Your task to perform on an android device: Do I have any events today? Image 0: 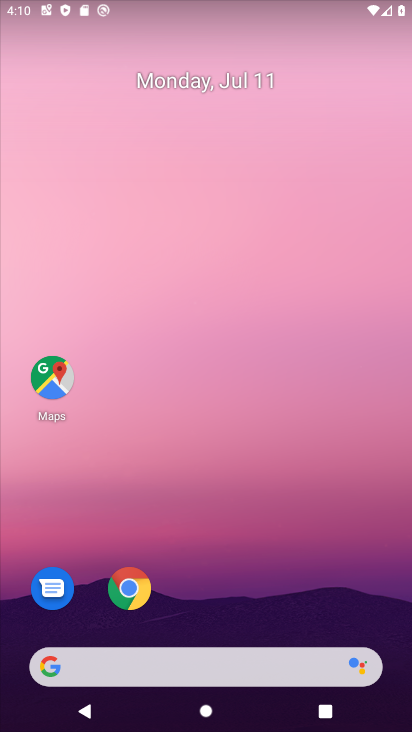
Step 0: drag from (356, 616) to (349, 106)
Your task to perform on an android device: Do I have any events today? Image 1: 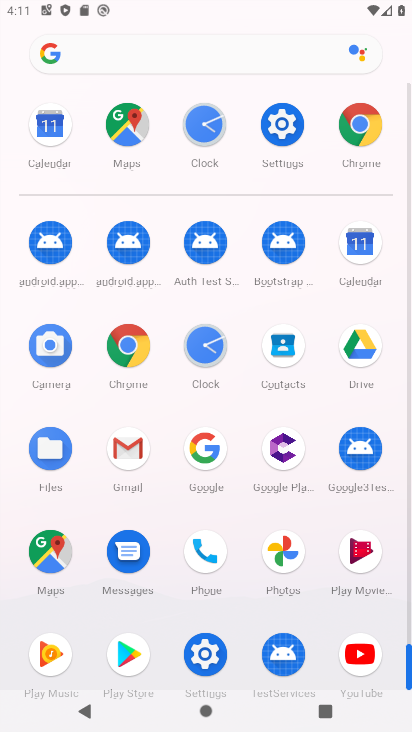
Step 1: click (358, 247)
Your task to perform on an android device: Do I have any events today? Image 2: 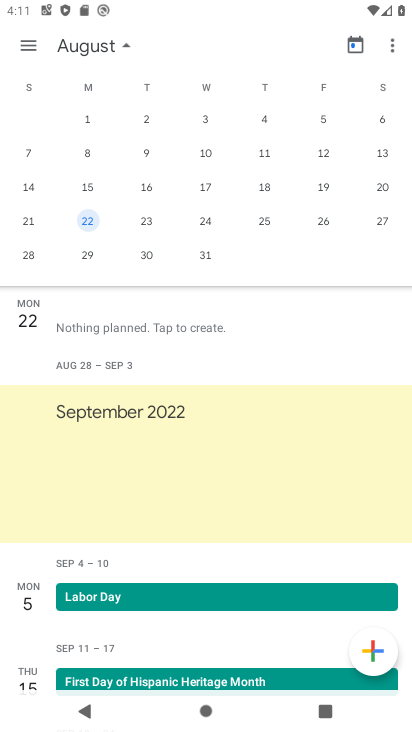
Step 2: drag from (111, 101) to (125, 387)
Your task to perform on an android device: Do I have any events today? Image 3: 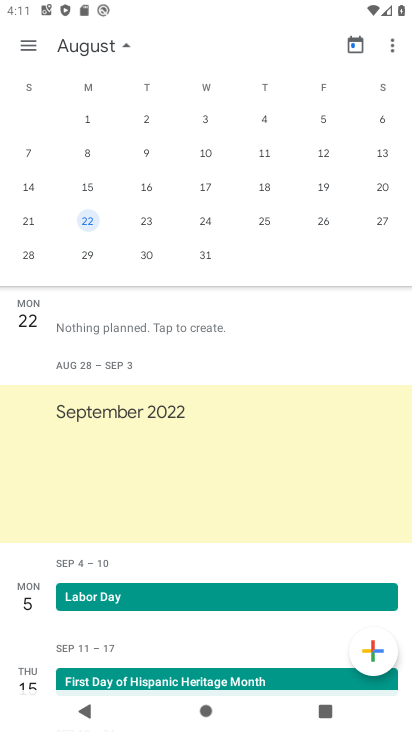
Step 3: click (123, 40)
Your task to perform on an android device: Do I have any events today? Image 4: 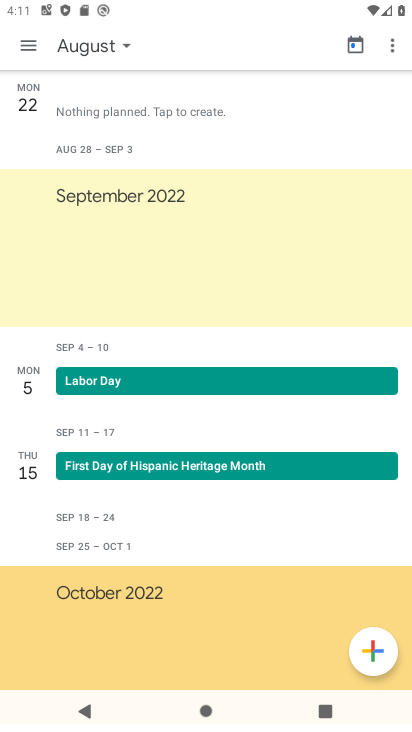
Step 4: click (120, 42)
Your task to perform on an android device: Do I have any events today? Image 5: 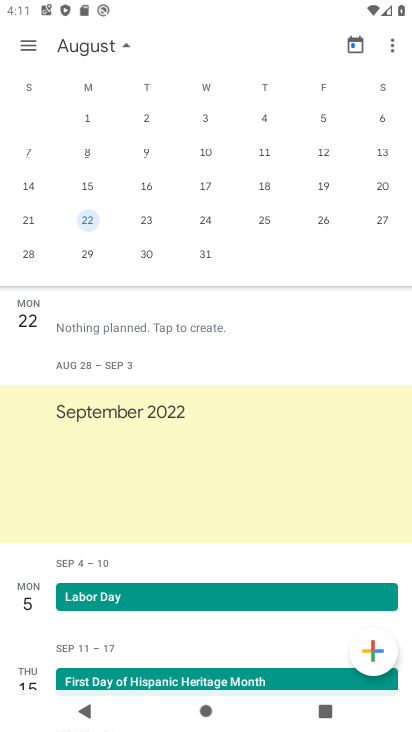
Step 5: drag from (85, 97) to (363, 115)
Your task to perform on an android device: Do I have any events today? Image 6: 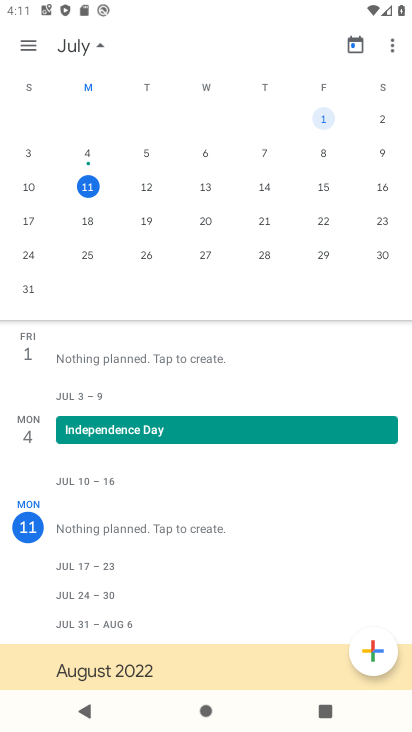
Step 6: click (88, 182)
Your task to perform on an android device: Do I have any events today? Image 7: 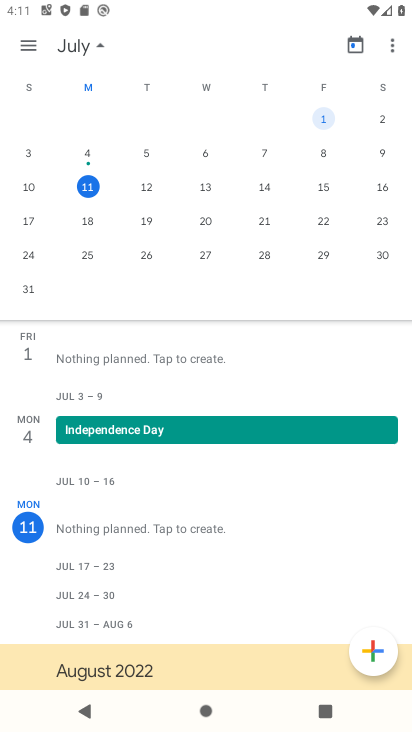
Step 7: task complete